Your task to perform on an android device: change alarm snooze length Image 0: 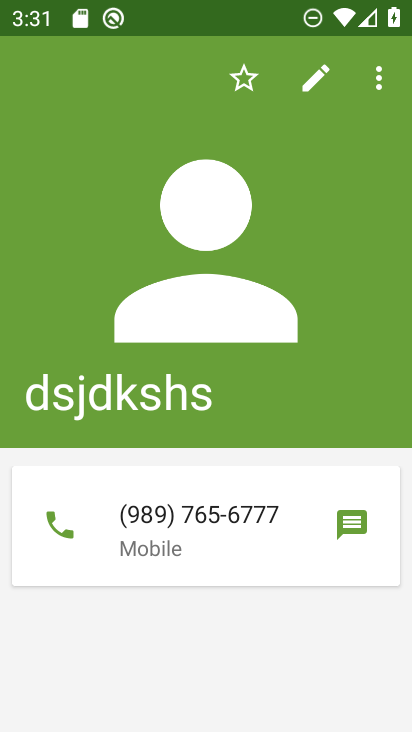
Step 0: press home button
Your task to perform on an android device: change alarm snooze length Image 1: 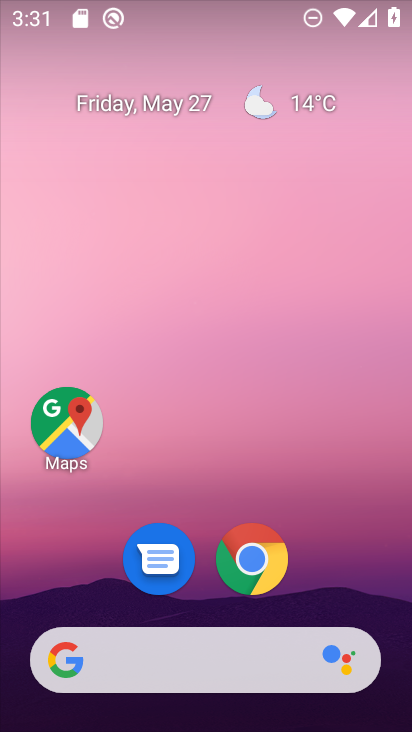
Step 1: drag from (342, 586) to (320, 59)
Your task to perform on an android device: change alarm snooze length Image 2: 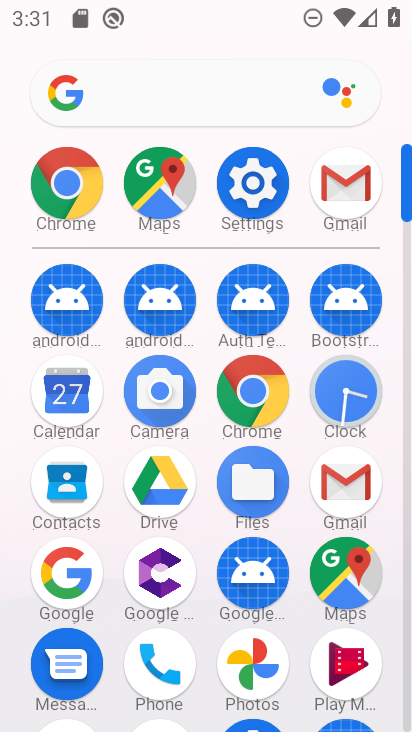
Step 2: click (355, 387)
Your task to perform on an android device: change alarm snooze length Image 3: 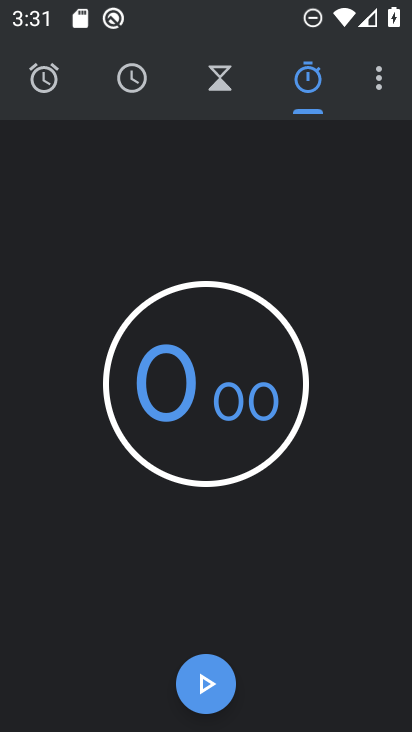
Step 3: click (382, 91)
Your task to perform on an android device: change alarm snooze length Image 4: 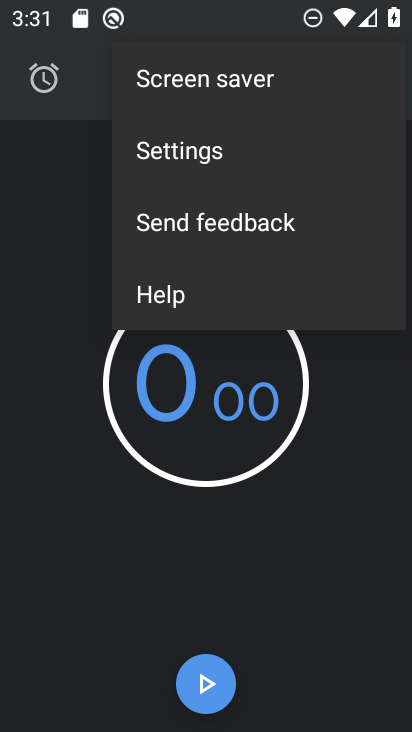
Step 4: click (265, 120)
Your task to perform on an android device: change alarm snooze length Image 5: 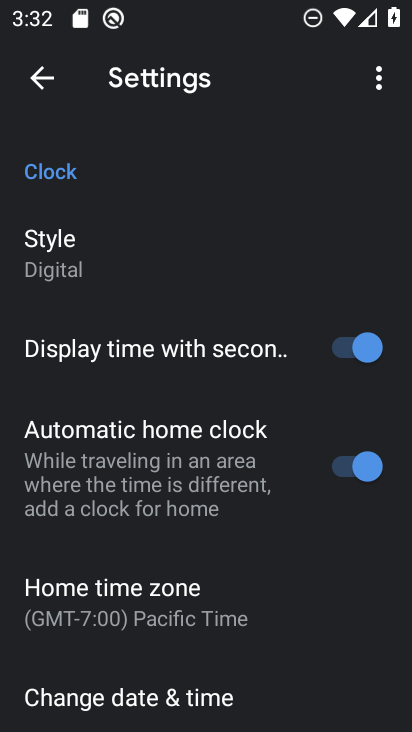
Step 5: drag from (308, 649) to (285, 265)
Your task to perform on an android device: change alarm snooze length Image 6: 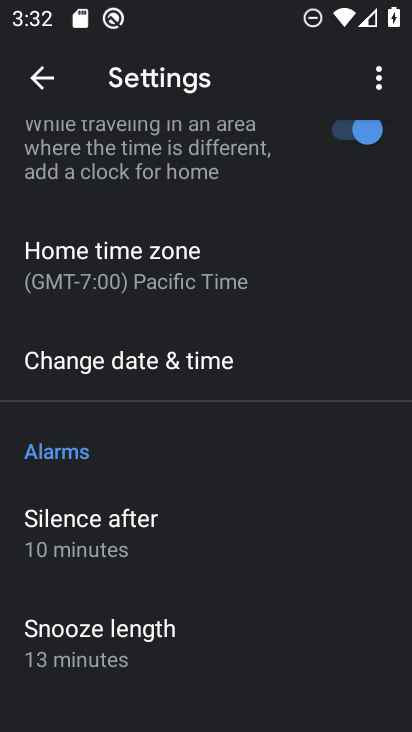
Step 6: click (142, 642)
Your task to perform on an android device: change alarm snooze length Image 7: 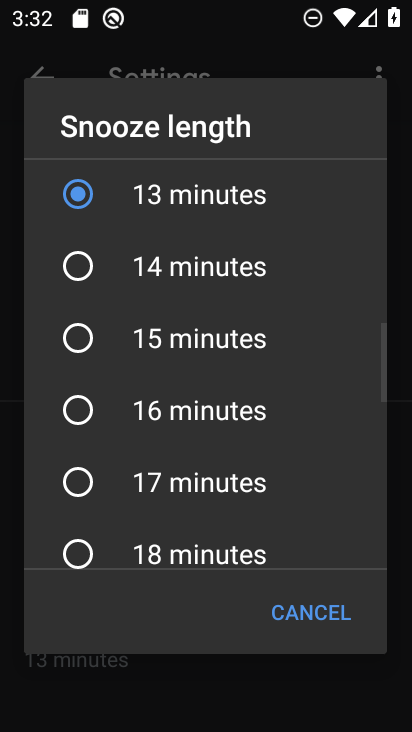
Step 7: click (202, 280)
Your task to perform on an android device: change alarm snooze length Image 8: 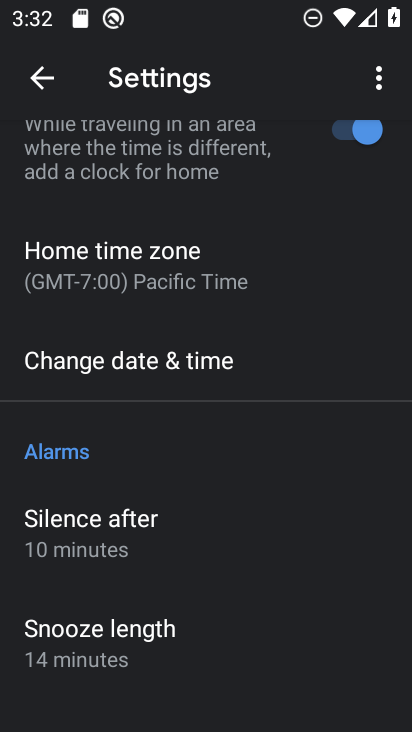
Step 8: task complete